Your task to perform on an android device: Open location settings Image 0: 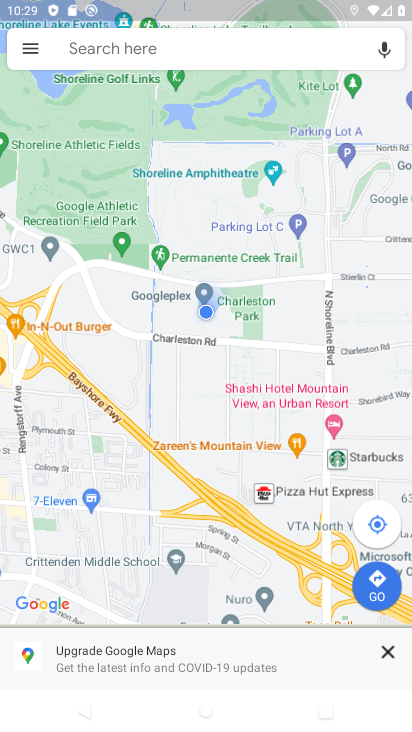
Step 0: press home button
Your task to perform on an android device: Open location settings Image 1: 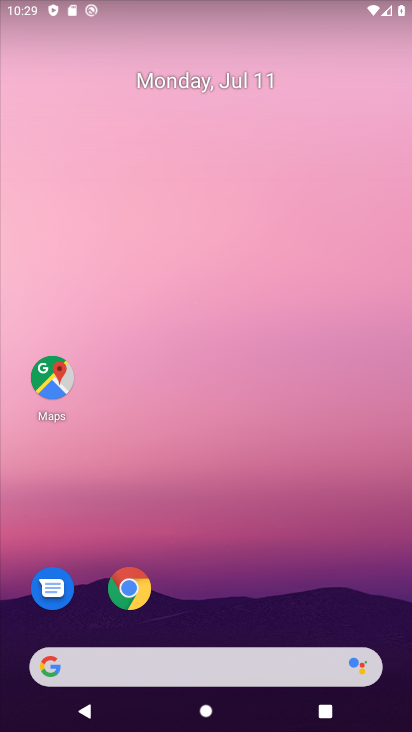
Step 1: drag from (246, 538) to (243, 71)
Your task to perform on an android device: Open location settings Image 2: 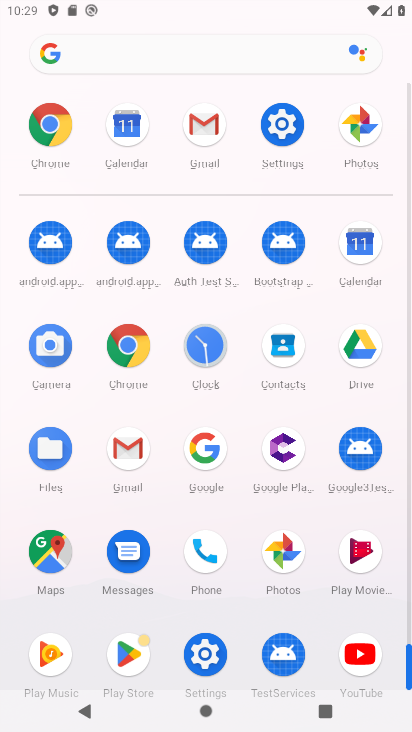
Step 2: click (285, 123)
Your task to perform on an android device: Open location settings Image 3: 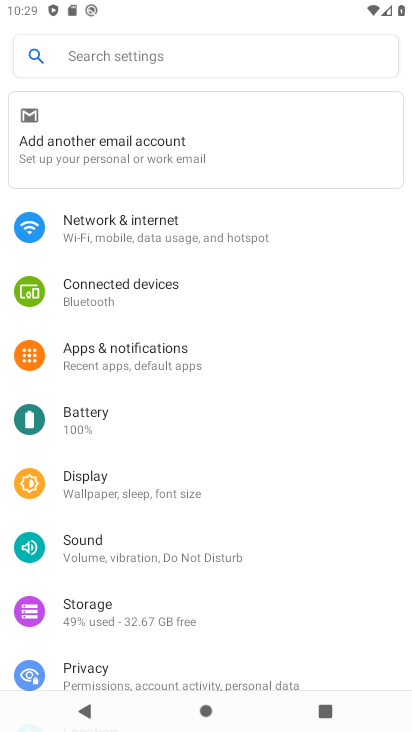
Step 3: drag from (259, 568) to (223, 199)
Your task to perform on an android device: Open location settings Image 4: 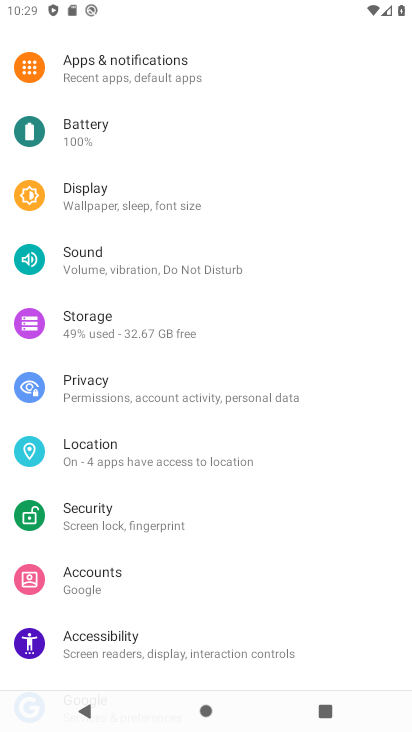
Step 4: click (105, 441)
Your task to perform on an android device: Open location settings Image 5: 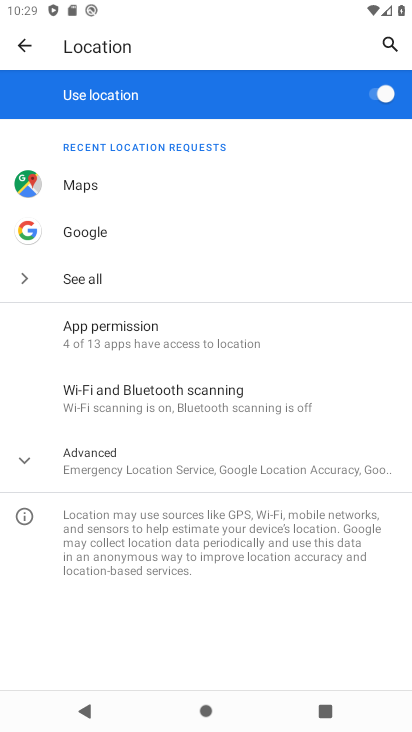
Step 5: task complete